Your task to perform on an android device: turn off priority inbox in the gmail app Image 0: 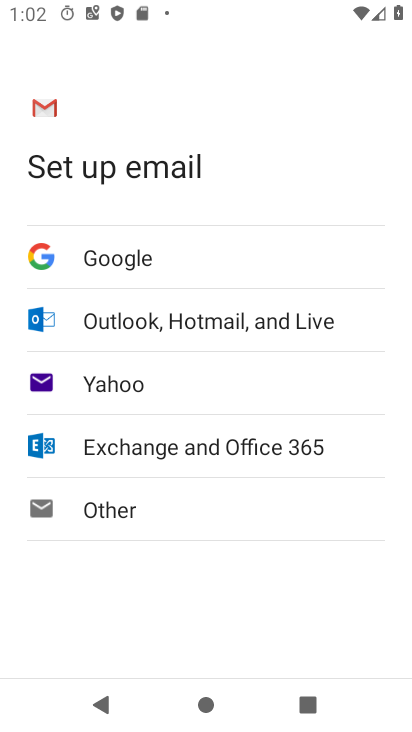
Step 0: press home button
Your task to perform on an android device: turn off priority inbox in the gmail app Image 1: 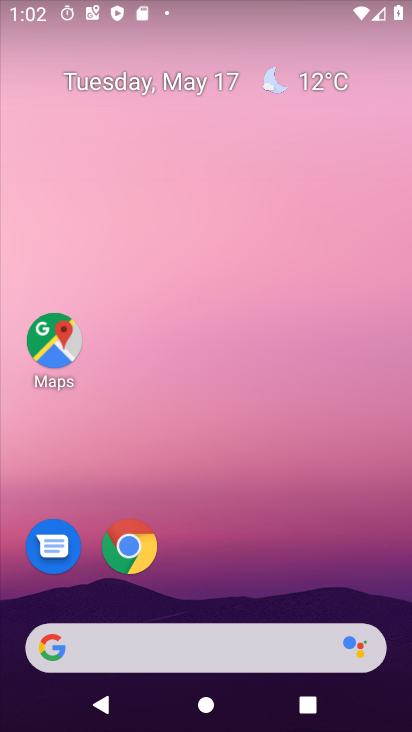
Step 1: drag from (171, 659) to (324, 167)
Your task to perform on an android device: turn off priority inbox in the gmail app Image 2: 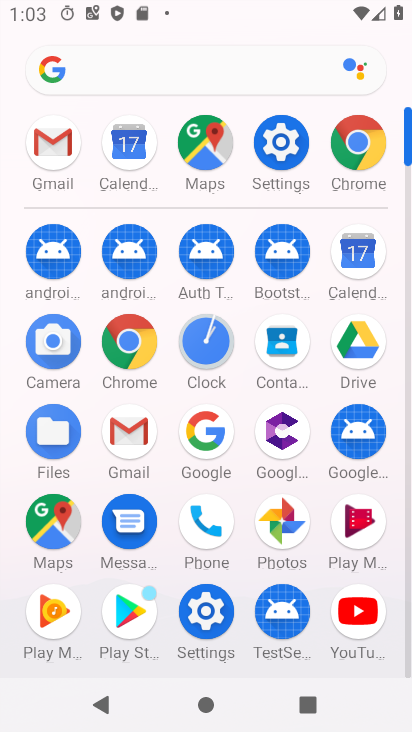
Step 2: click (125, 436)
Your task to perform on an android device: turn off priority inbox in the gmail app Image 3: 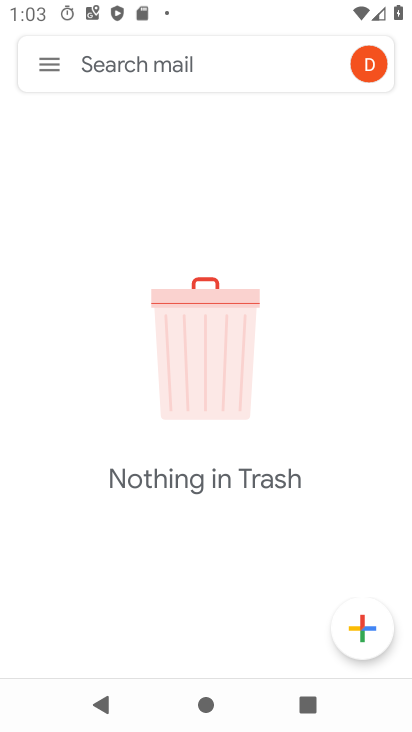
Step 3: click (49, 63)
Your task to perform on an android device: turn off priority inbox in the gmail app Image 4: 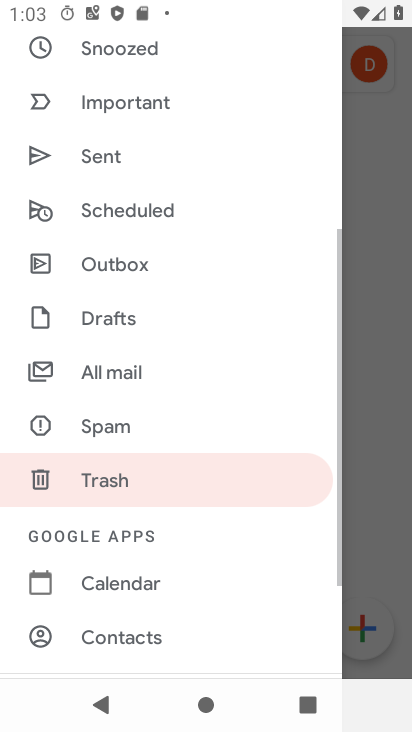
Step 4: drag from (139, 618) to (309, 175)
Your task to perform on an android device: turn off priority inbox in the gmail app Image 5: 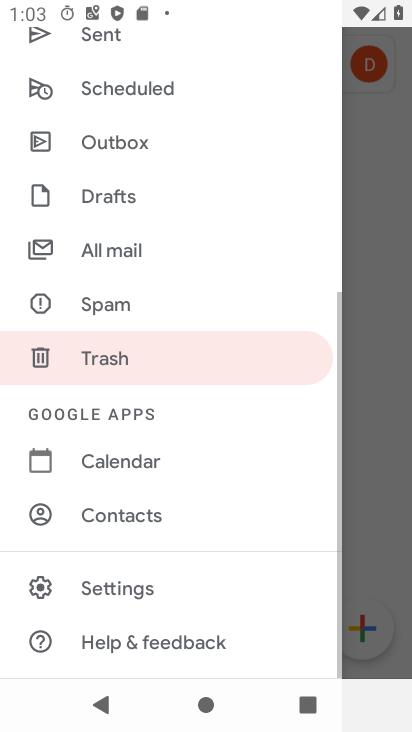
Step 5: click (139, 591)
Your task to perform on an android device: turn off priority inbox in the gmail app Image 6: 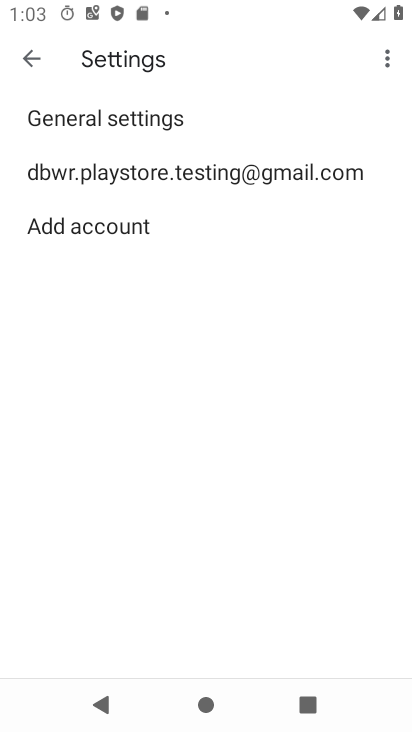
Step 6: click (246, 176)
Your task to perform on an android device: turn off priority inbox in the gmail app Image 7: 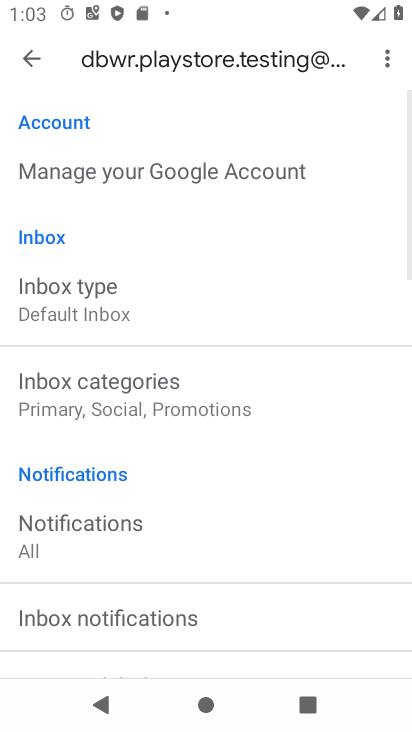
Step 7: click (84, 301)
Your task to perform on an android device: turn off priority inbox in the gmail app Image 8: 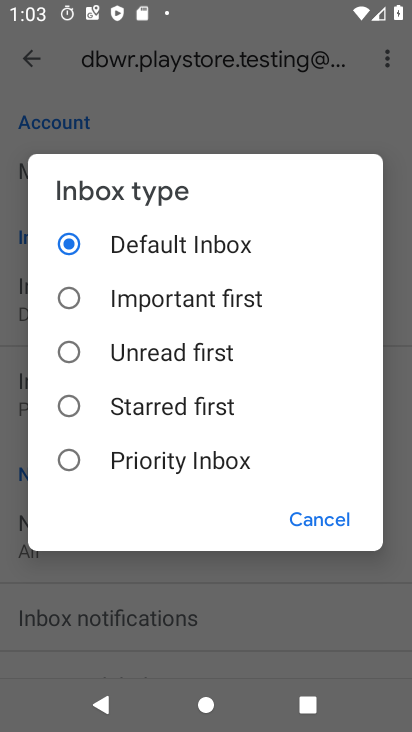
Step 8: task complete